Your task to perform on an android device: open app "Pinterest" Image 0: 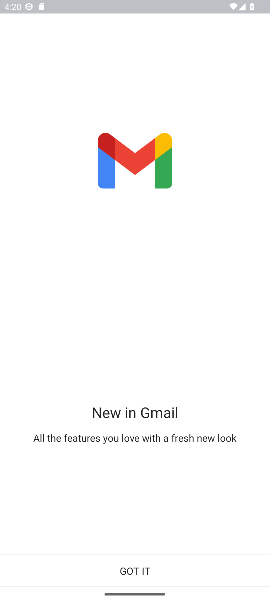
Step 0: press home button
Your task to perform on an android device: open app "Pinterest" Image 1: 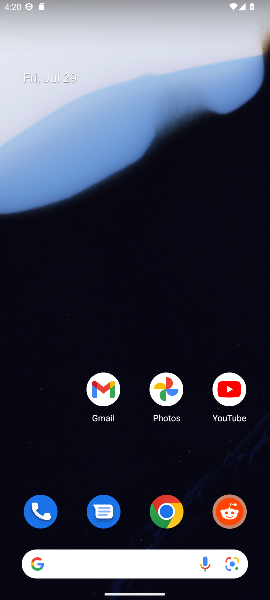
Step 1: drag from (14, 561) to (172, 123)
Your task to perform on an android device: open app "Pinterest" Image 2: 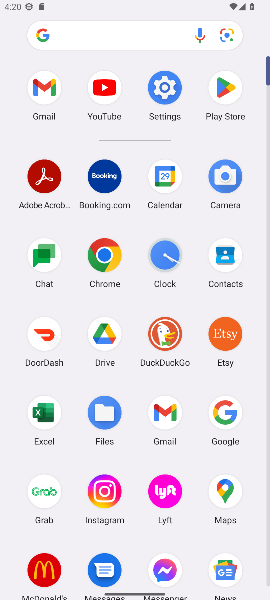
Step 2: drag from (81, 530) to (110, 322)
Your task to perform on an android device: open app "Pinterest" Image 3: 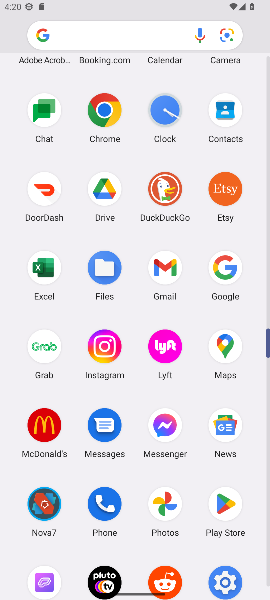
Step 3: drag from (66, 572) to (136, 323)
Your task to perform on an android device: open app "Pinterest" Image 4: 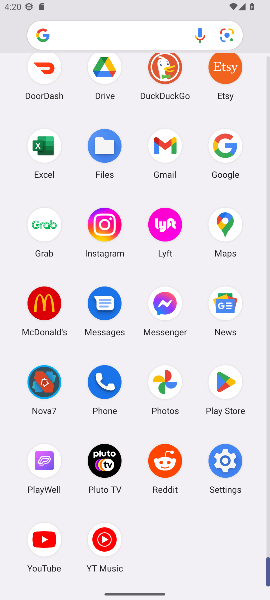
Step 4: click (230, 387)
Your task to perform on an android device: open app "Pinterest" Image 5: 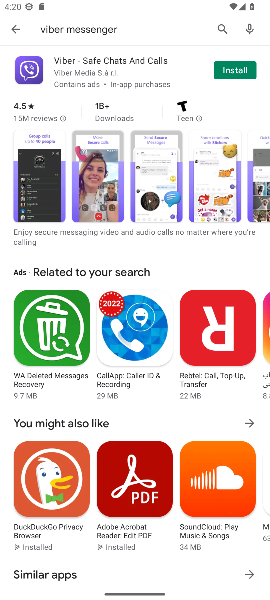
Step 5: click (12, 28)
Your task to perform on an android device: open app "Pinterest" Image 6: 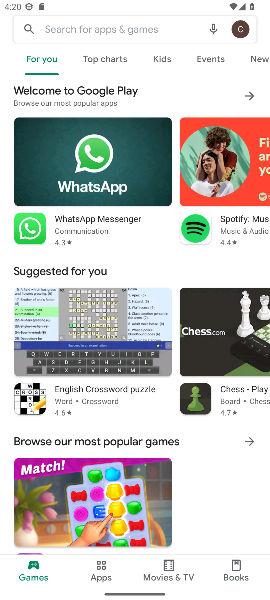
Step 6: click (62, 31)
Your task to perform on an android device: open app "Pinterest" Image 7: 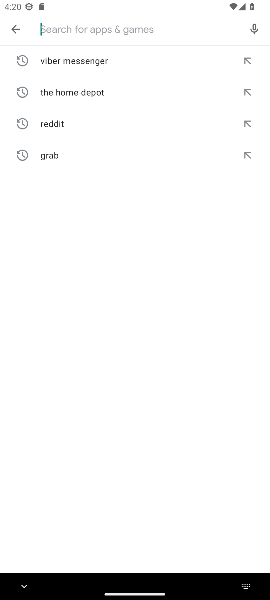
Step 7: type "Pinterest"
Your task to perform on an android device: open app "Pinterest" Image 8: 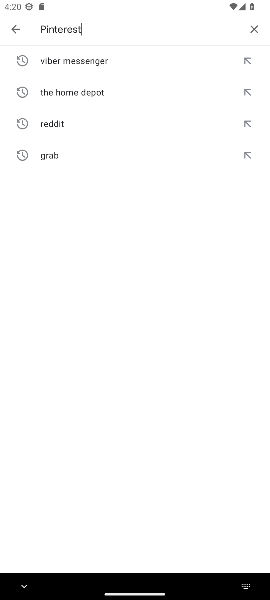
Step 8: type ""
Your task to perform on an android device: open app "Pinterest" Image 9: 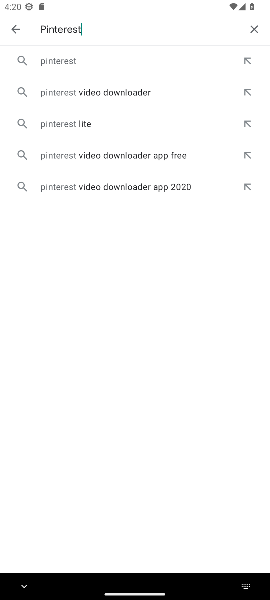
Step 9: click (79, 62)
Your task to perform on an android device: open app "Pinterest" Image 10: 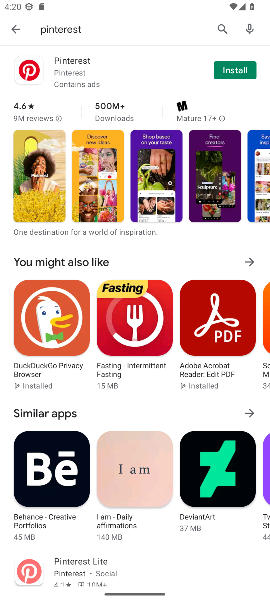
Step 10: task complete